Your task to perform on an android device: turn on priority inbox in the gmail app Image 0: 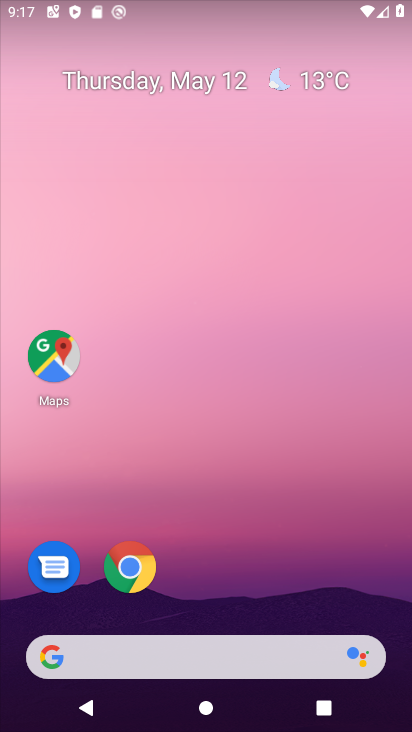
Step 0: drag from (216, 601) to (211, 0)
Your task to perform on an android device: turn on priority inbox in the gmail app Image 1: 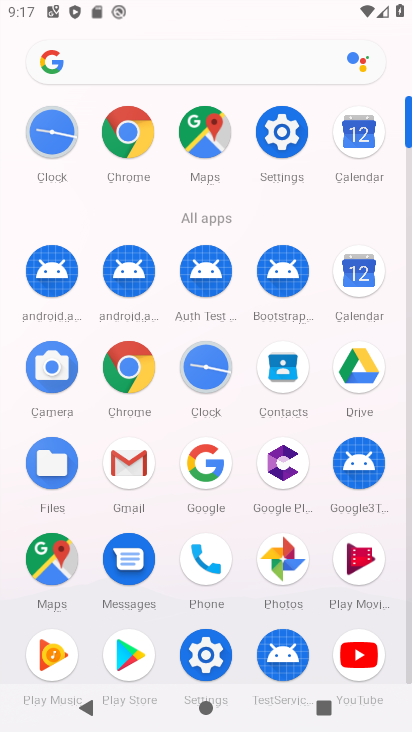
Step 1: click (128, 454)
Your task to perform on an android device: turn on priority inbox in the gmail app Image 2: 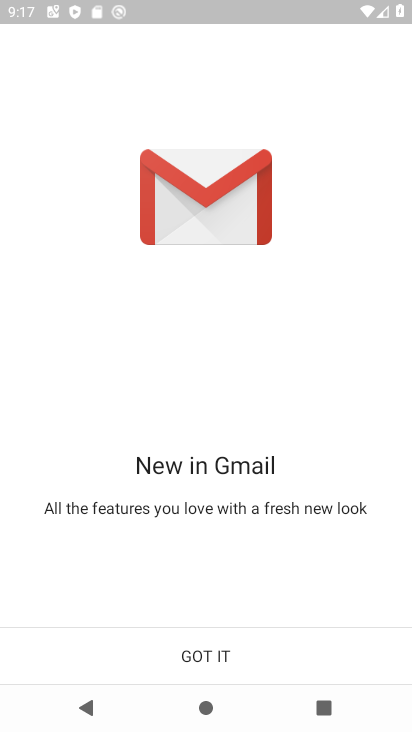
Step 2: click (211, 656)
Your task to perform on an android device: turn on priority inbox in the gmail app Image 3: 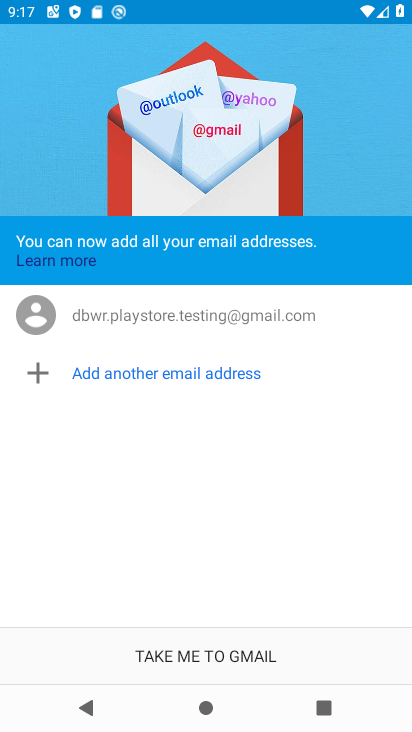
Step 3: click (202, 654)
Your task to perform on an android device: turn on priority inbox in the gmail app Image 4: 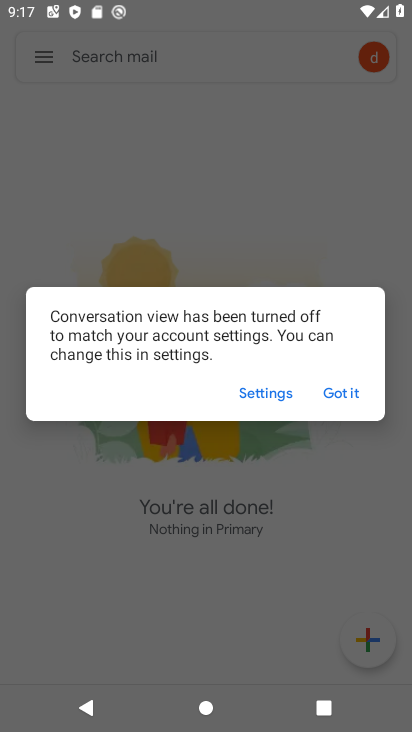
Step 4: click (342, 386)
Your task to perform on an android device: turn on priority inbox in the gmail app Image 5: 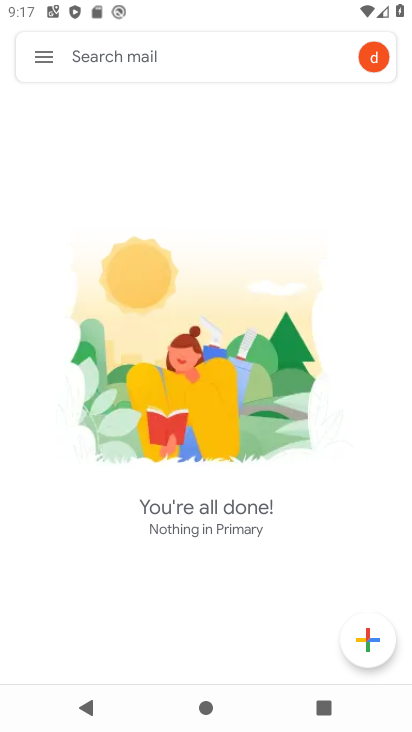
Step 5: click (40, 56)
Your task to perform on an android device: turn on priority inbox in the gmail app Image 6: 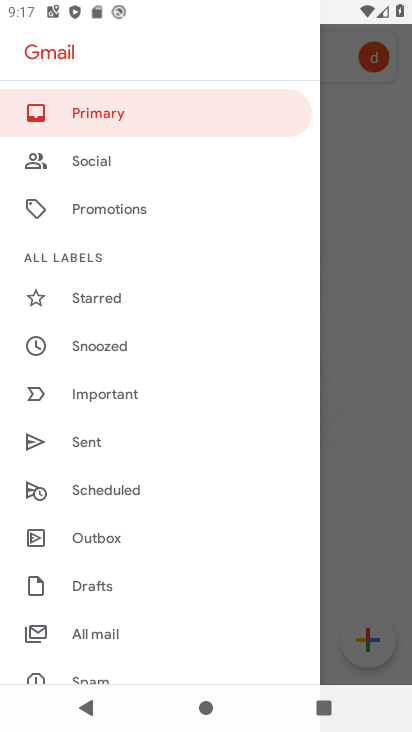
Step 6: drag from (127, 577) to (129, 68)
Your task to perform on an android device: turn on priority inbox in the gmail app Image 7: 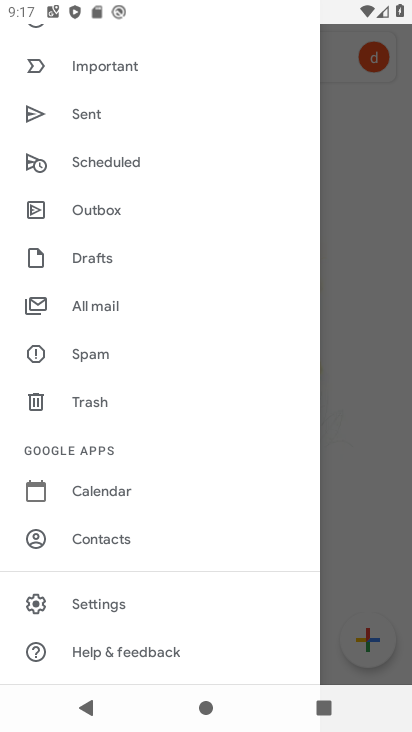
Step 7: click (131, 595)
Your task to perform on an android device: turn on priority inbox in the gmail app Image 8: 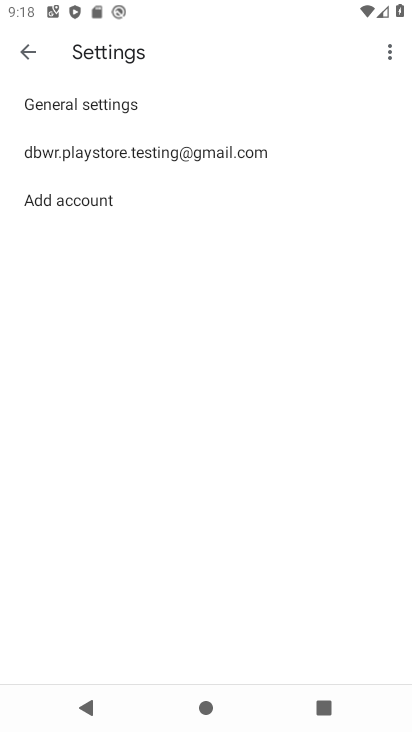
Step 8: click (200, 157)
Your task to perform on an android device: turn on priority inbox in the gmail app Image 9: 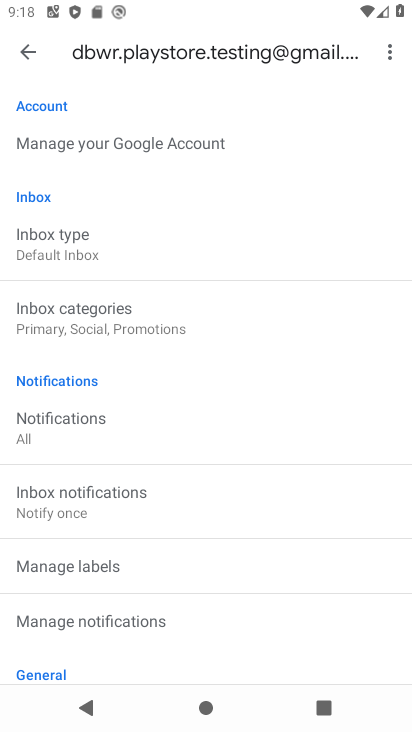
Step 9: click (103, 239)
Your task to perform on an android device: turn on priority inbox in the gmail app Image 10: 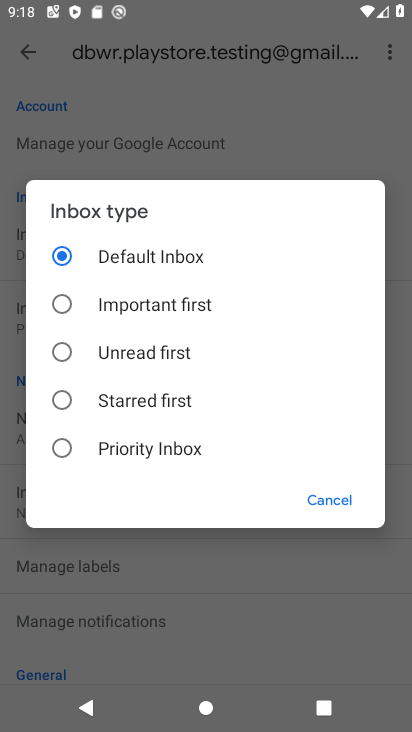
Step 10: click (63, 453)
Your task to perform on an android device: turn on priority inbox in the gmail app Image 11: 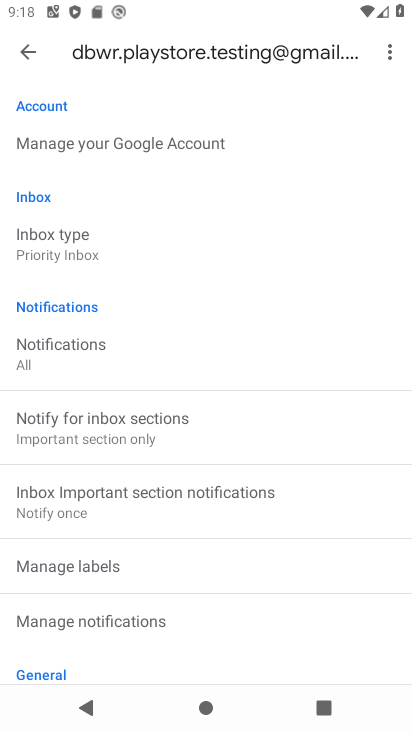
Step 11: task complete